Your task to perform on an android device: find snoozed emails in the gmail app Image 0: 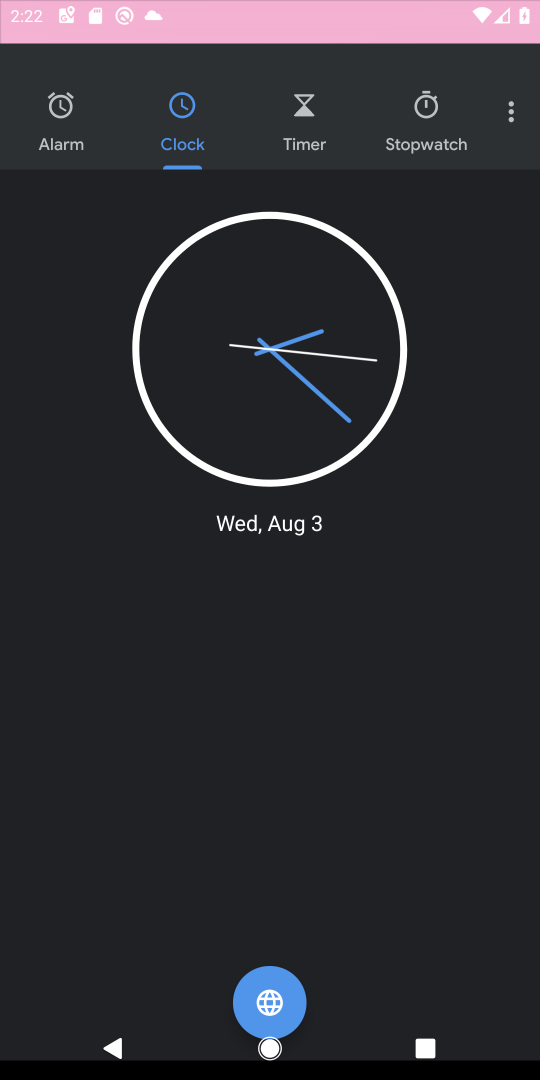
Step 0: press home button
Your task to perform on an android device: find snoozed emails in the gmail app Image 1: 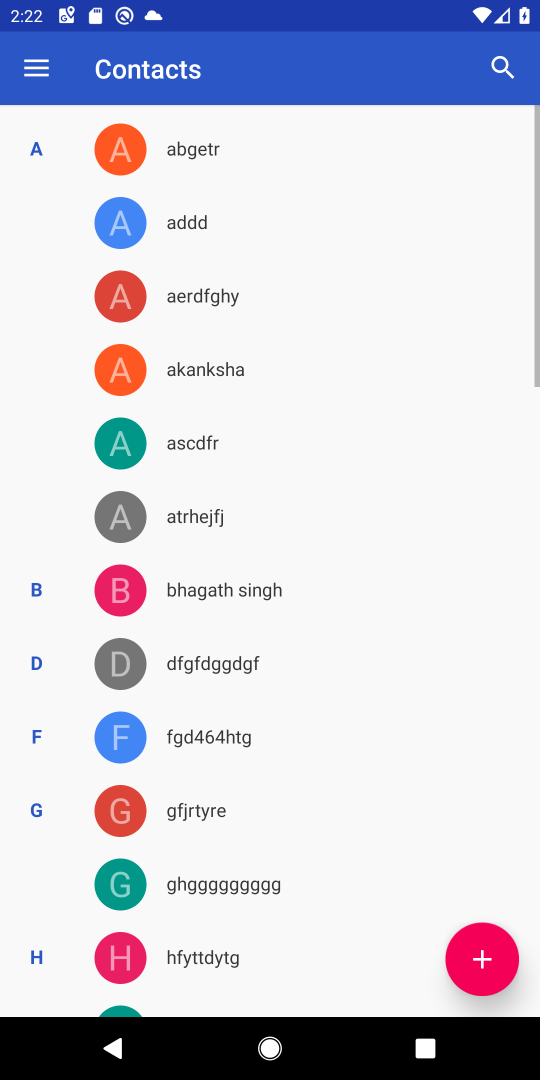
Step 1: press home button
Your task to perform on an android device: find snoozed emails in the gmail app Image 2: 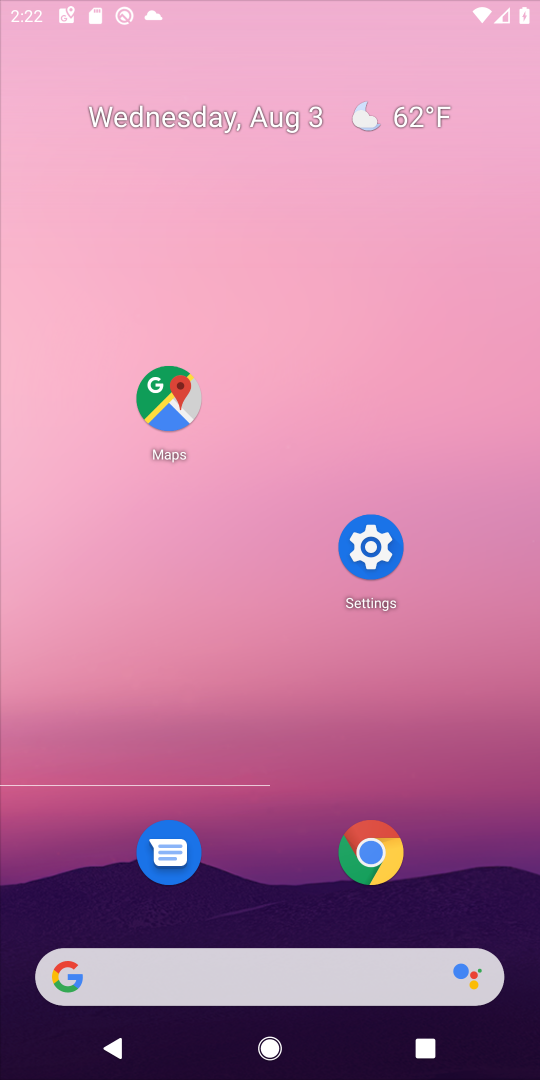
Step 2: press home button
Your task to perform on an android device: find snoozed emails in the gmail app Image 3: 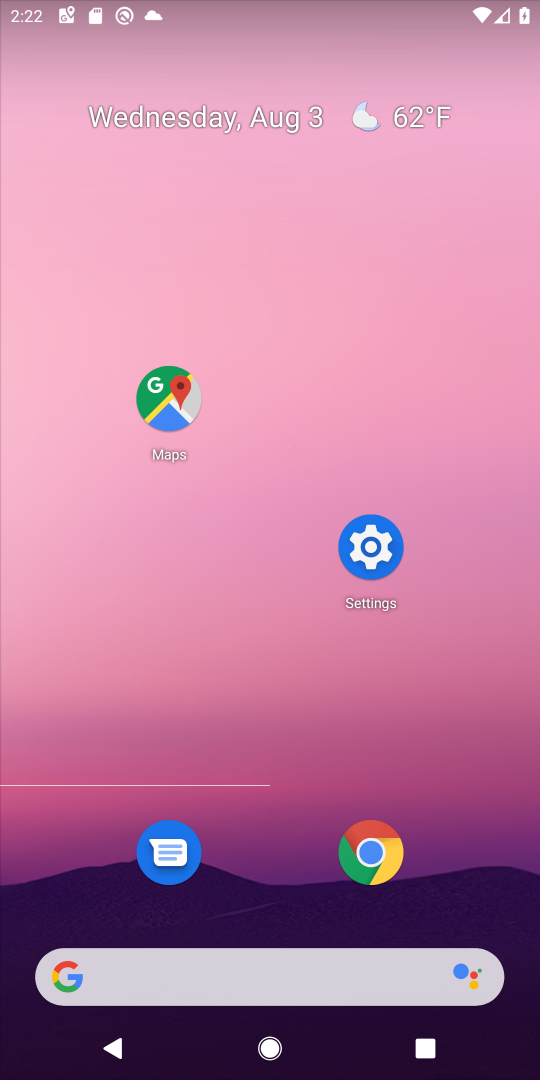
Step 3: drag from (274, 962) to (414, 191)
Your task to perform on an android device: find snoozed emails in the gmail app Image 4: 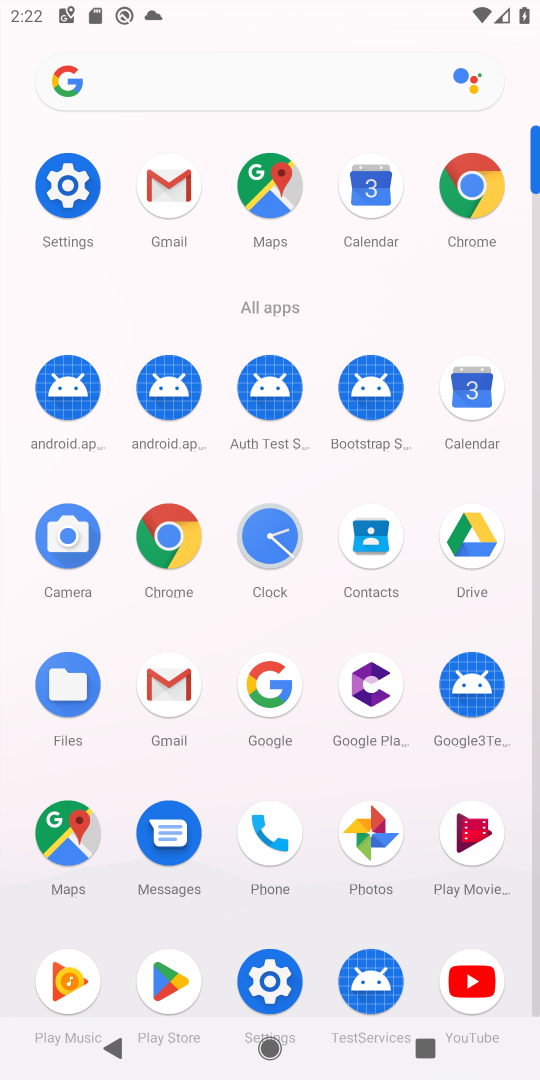
Step 4: click (169, 196)
Your task to perform on an android device: find snoozed emails in the gmail app Image 5: 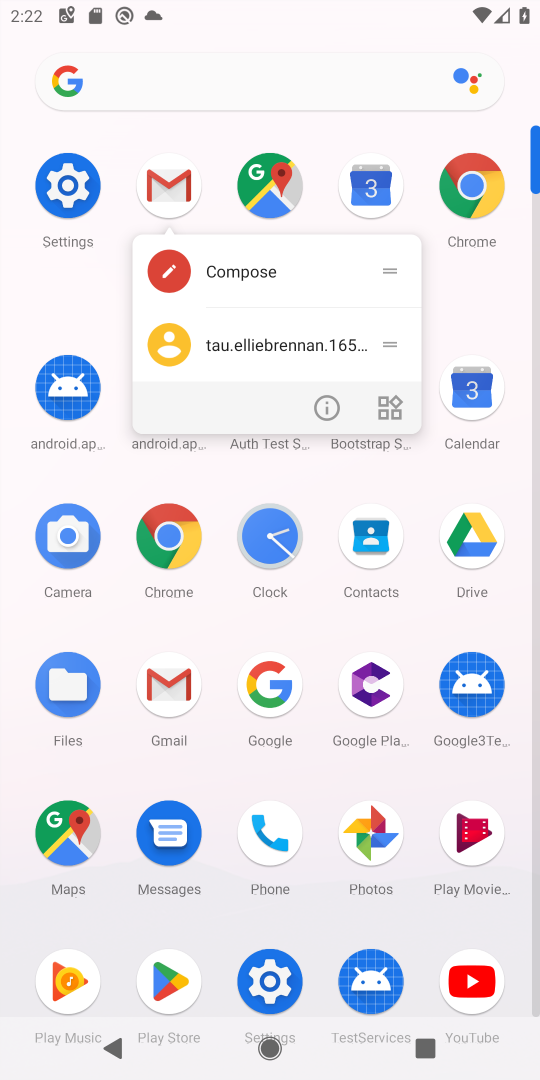
Step 5: click (169, 181)
Your task to perform on an android device: find snoozed emails in the gmail app Image 6: 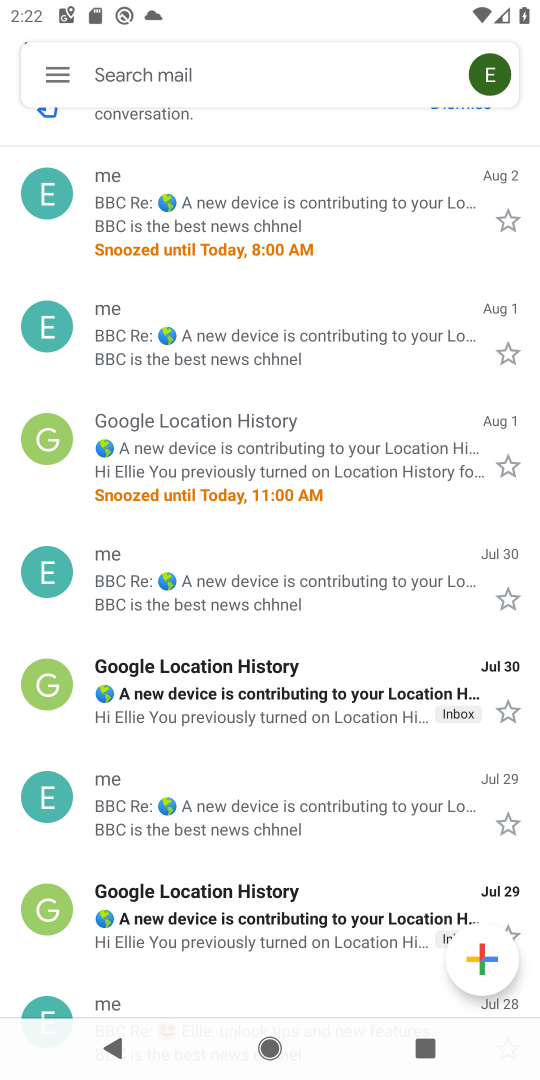
Step 6: click (58, 63)
Your task to perform on an android device: find snoozed emails in the gmail app Image 7: 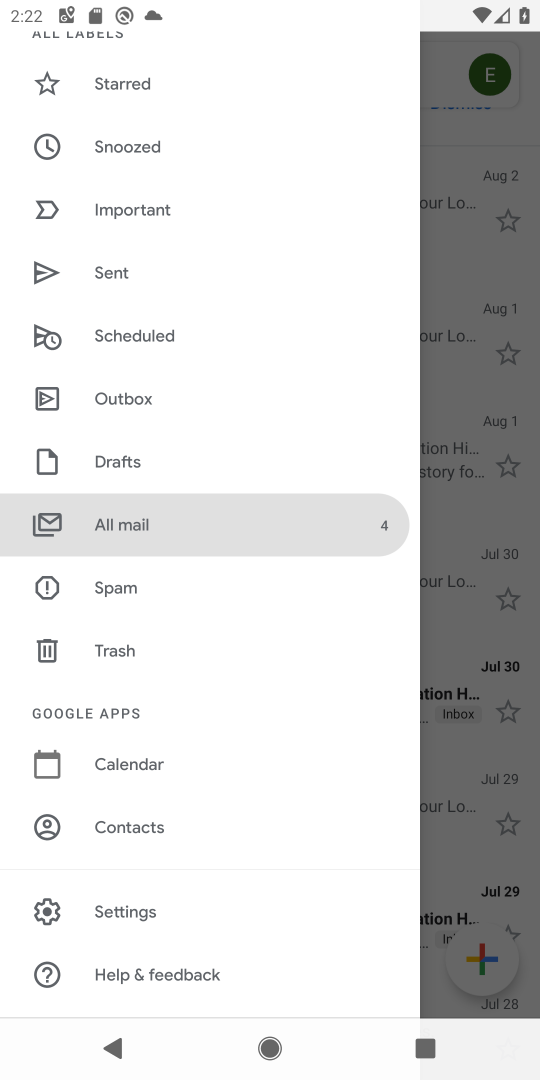
Step 7: click (135, 149)
Your task to perform on an android device: find snoozed emails in the gmail app Image 8: 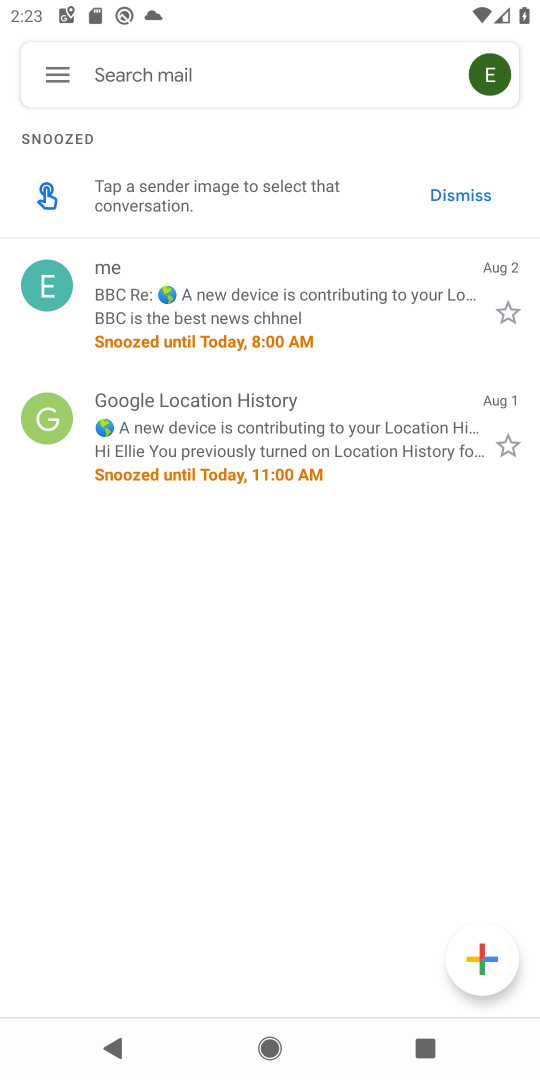
Step 8: task complete